Your task to perform on an android device: toggle wifi Image 0: 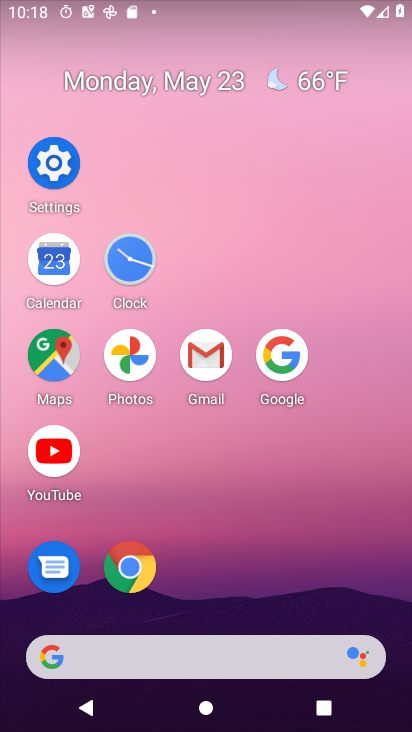
Step 0: click (57, 159)
Your task to perform on an android device: toggle wifi Image 1: 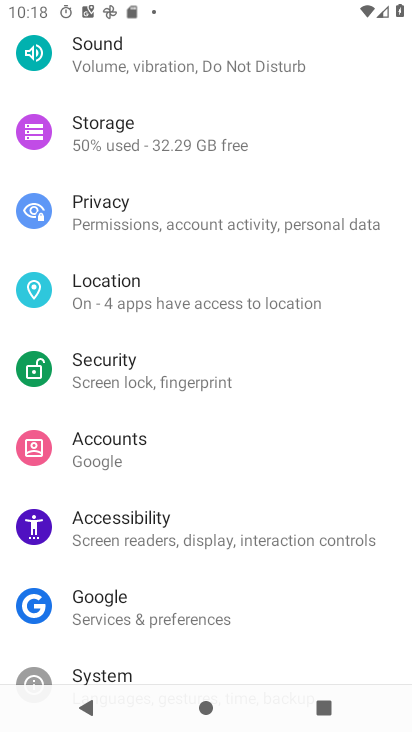
Step 1: drag from (295, 166) to (239, 642)
Your task to perform on an android device: toggle wifi Image 2: 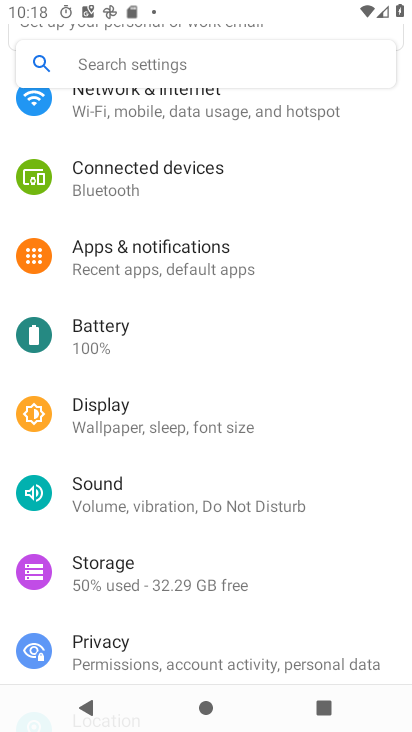
Step 2: drag from (273, 178) to (262, 583)
Your task to perform on an android device: toggle wifi Image 3: 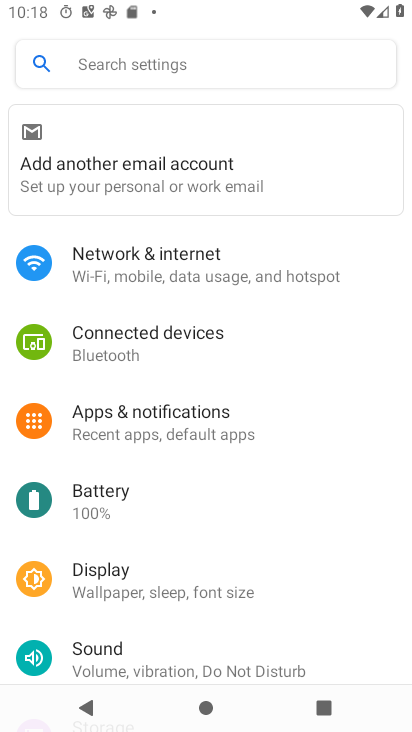
Step 3: click (186, 273)
Your task to perform on an android device: toggle wifi Image 4: 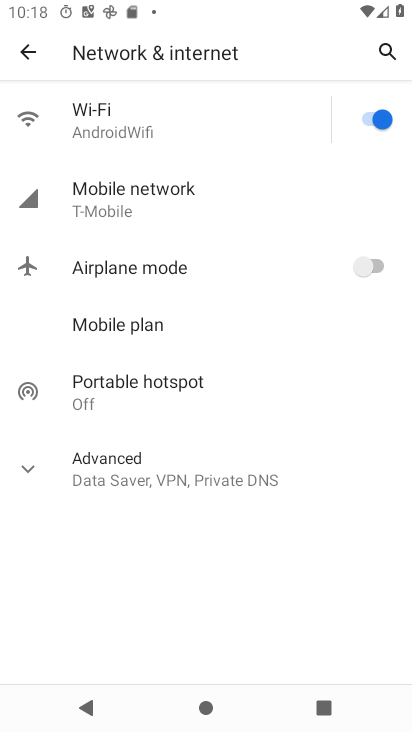
Step 4: click (157, 137)
Your task to perform on an android device: toggle wifi Image 5: 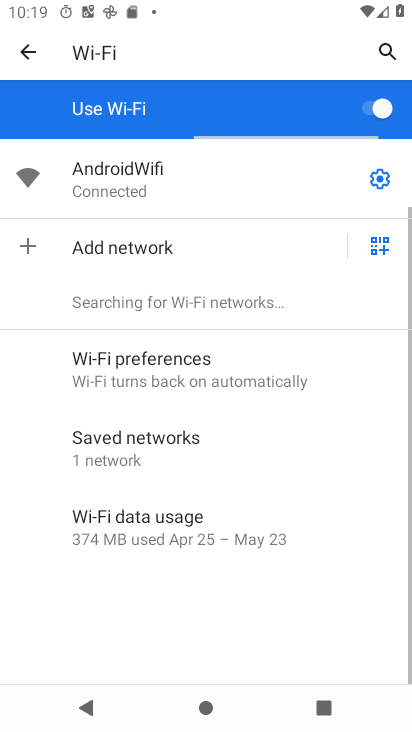
Step 5: click (382, 115)
Your task to perform on an android device: toggle wifi Image 6: 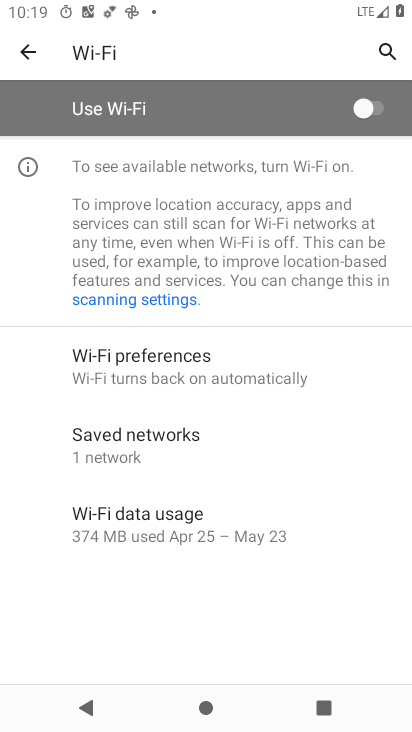
Step 6: task complete